Your task to perform on an android device: Search for Mexican restaurants on Maps Image 0: 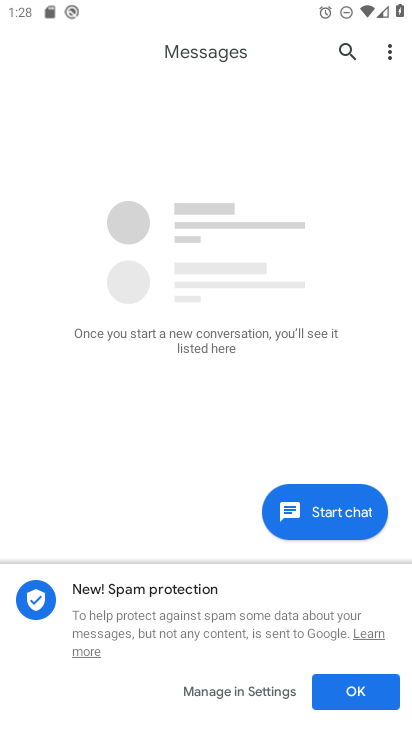
Step 0: press home button
Your task to perform on an android device: Search for Mexican restaurants on Maps Image 1: 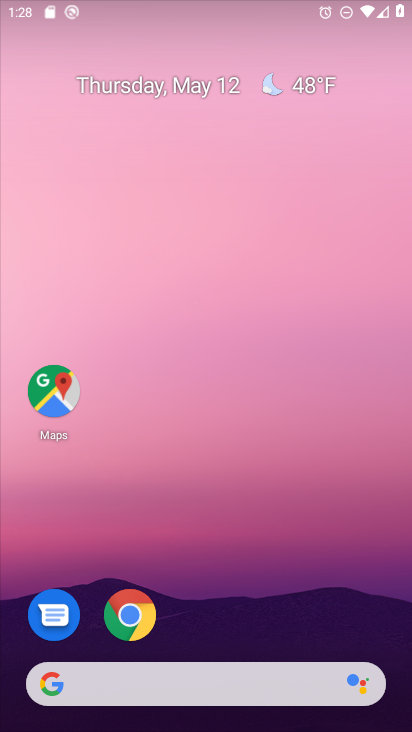
Step 1: drag from (297, 647) to (330, 0)
Your task to perform on an android device: Search for Mexican restaurants on Maps Image 2: 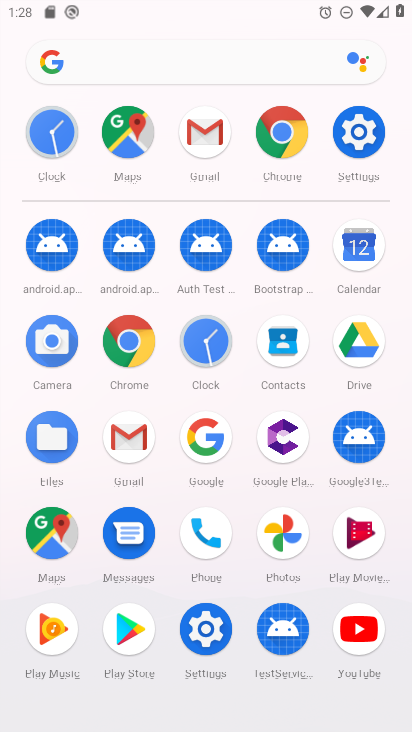
Step 2: click (61, 535)
Your task to perform on an android device: Search for Mexican restaurants on Maps Image 3: 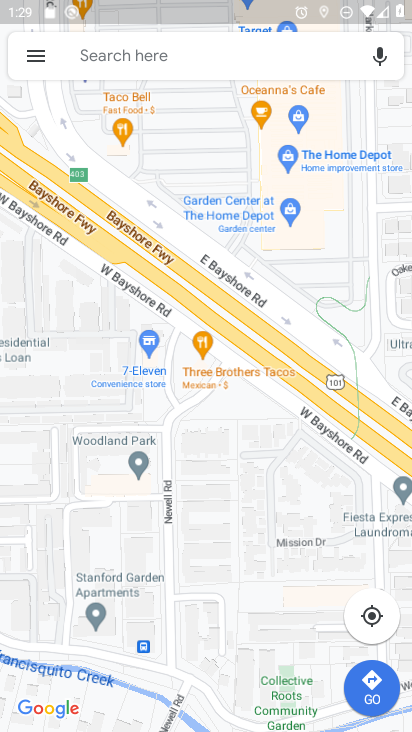
Step 3: click (277, 58)
Your task to perform on an android device: Search for Mexican restaurants on Maps Image 4: 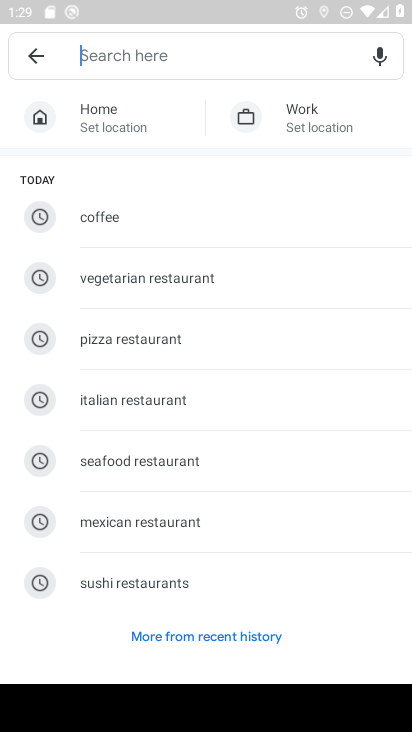
Step 4: click (136, 531)
Your task to perform on an android device: Search for Mexican restaurants on Maps Image 5: 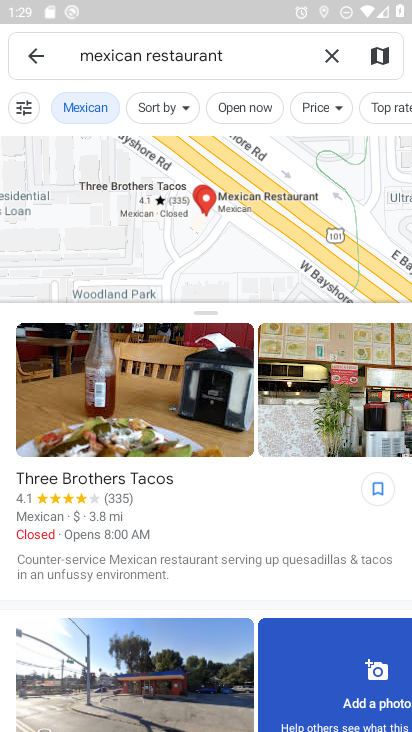
Step 5: task complete